Your task to perform on an android device: Open Google Chrome and click the shortcut for Amazon.com Image 0: 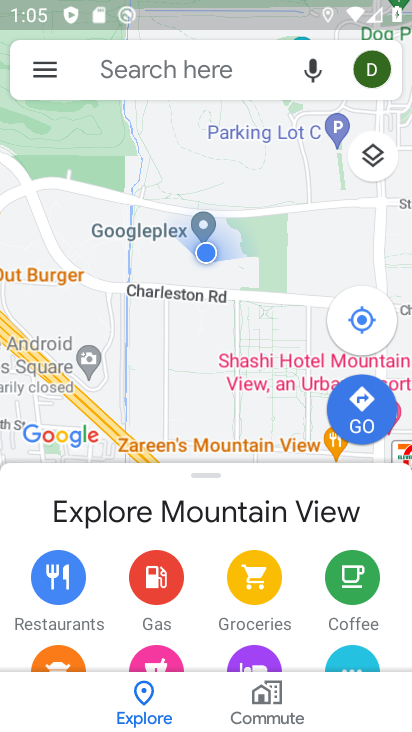
Step 0: press back button
Your task to perform on an android device: Open Google Chrome and click the shortcut for Amazon.com Image 1: 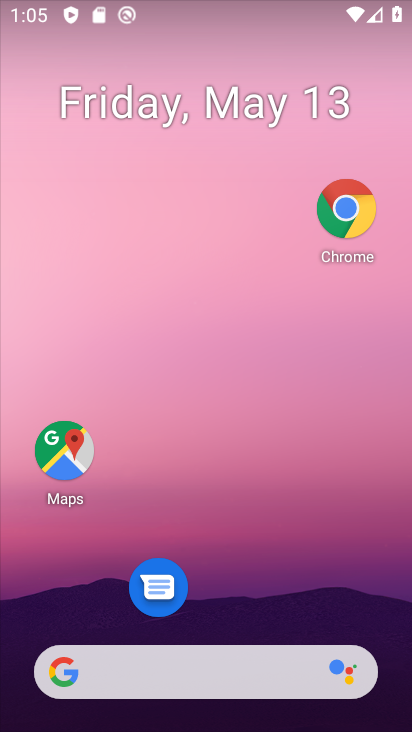
Step 1: click (332, 210)
Your task to perform on an android device: Open Google Chrome and click the shortcut for Amazon.com Image 2: 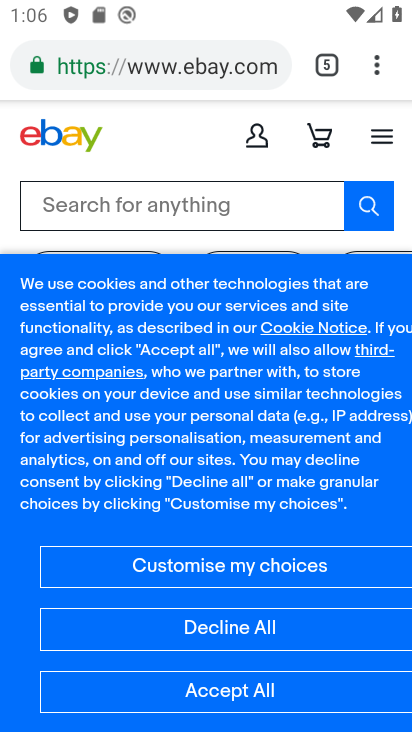
Step 2: click (319, 69)
Your task to perform on an android device: Open Google Chrome and click the shortcut for Amazon.com Image 3: 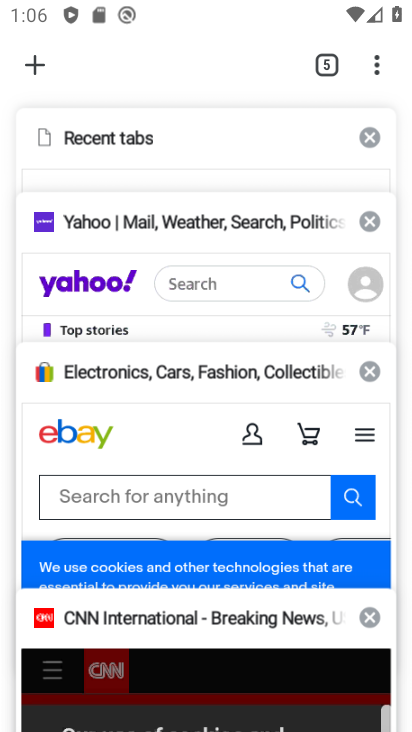
Step 3: click (86, 141)
Your task to perform on an android device: Open Google Chrome and click the shortcut for Amazon.com Image 4: 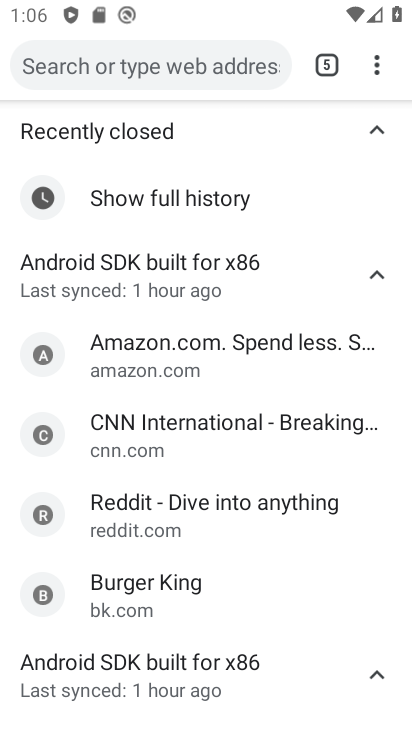
Step 4: click (137, 354)
Your task to perform on an android device: Open Google Chrome and click the shortcut for Amazon.com Image 5: 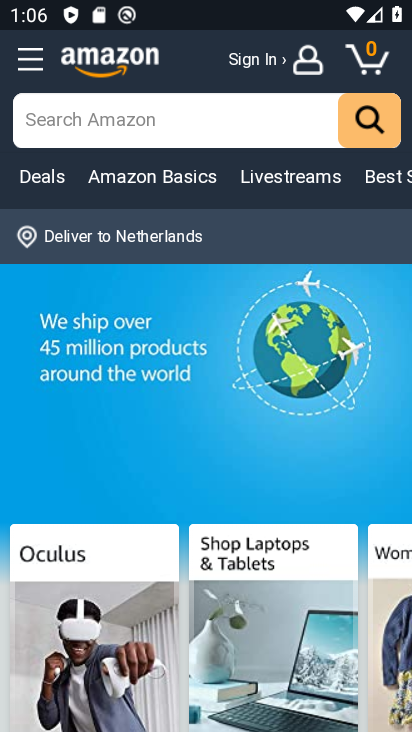
Step 5: task complete